Your task to perform on an android device: change notifications settings Image 0: 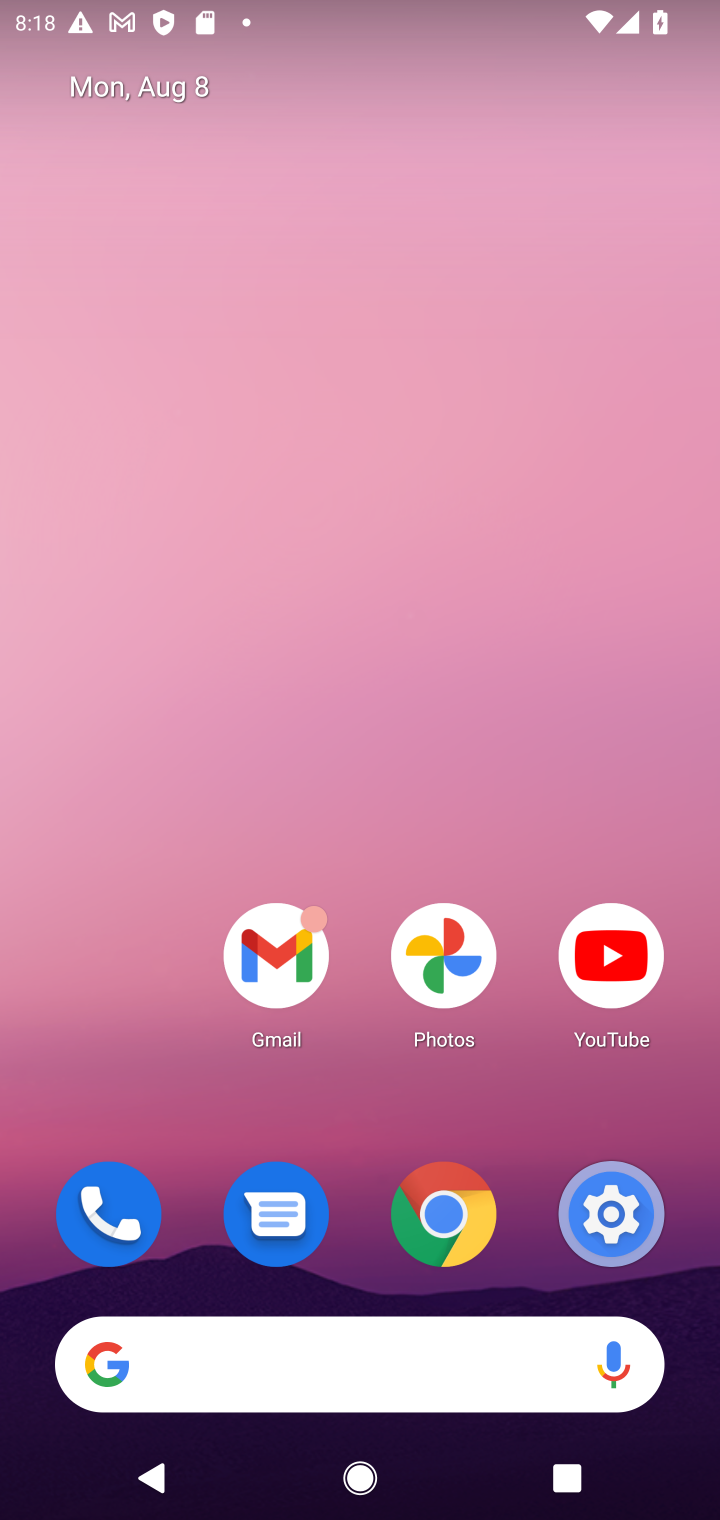
Step 0: click (633, 1205)
Your task to perform on an android device: change notifications settings Image 1: 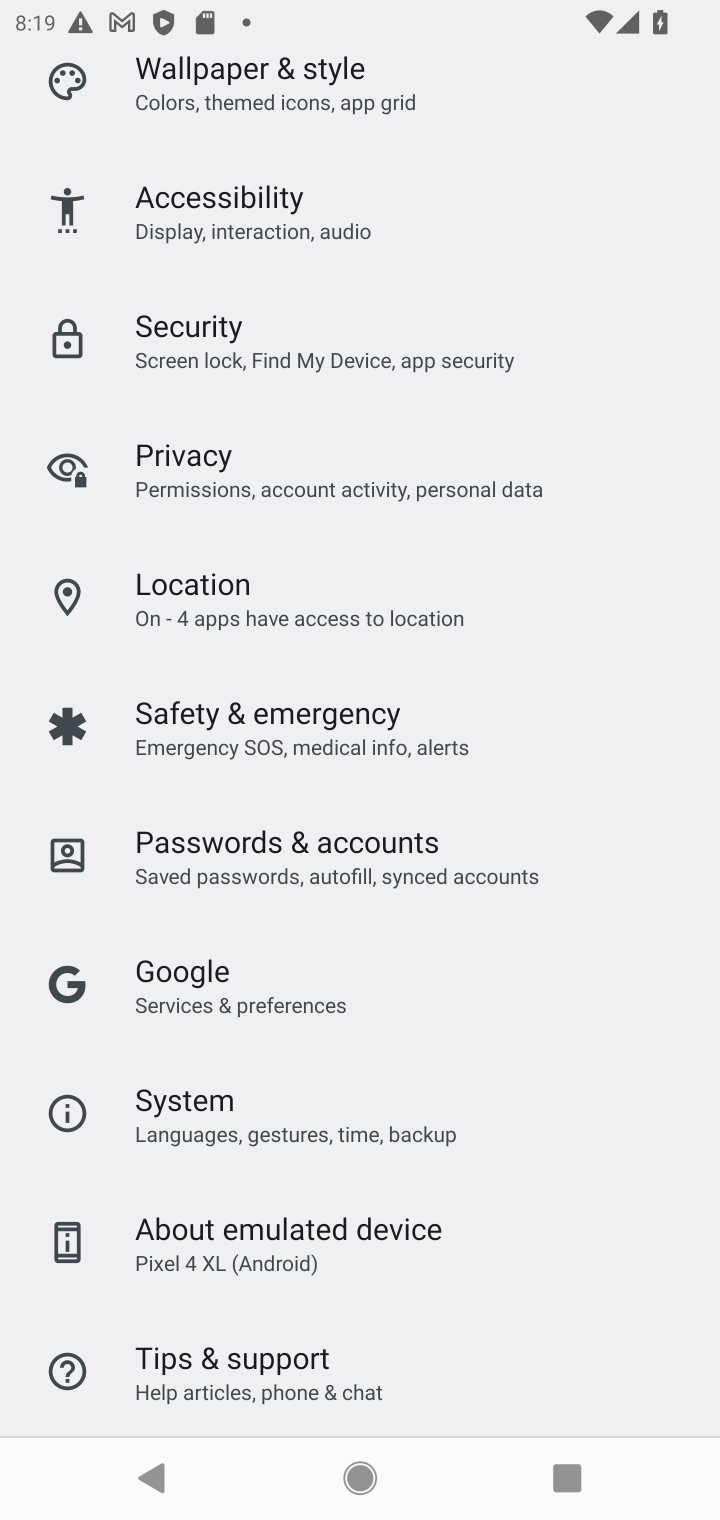
Step 1: drag from (527, 280) to (202, 1515)
Your task to perform on an android device: change notifications settings Image 2: 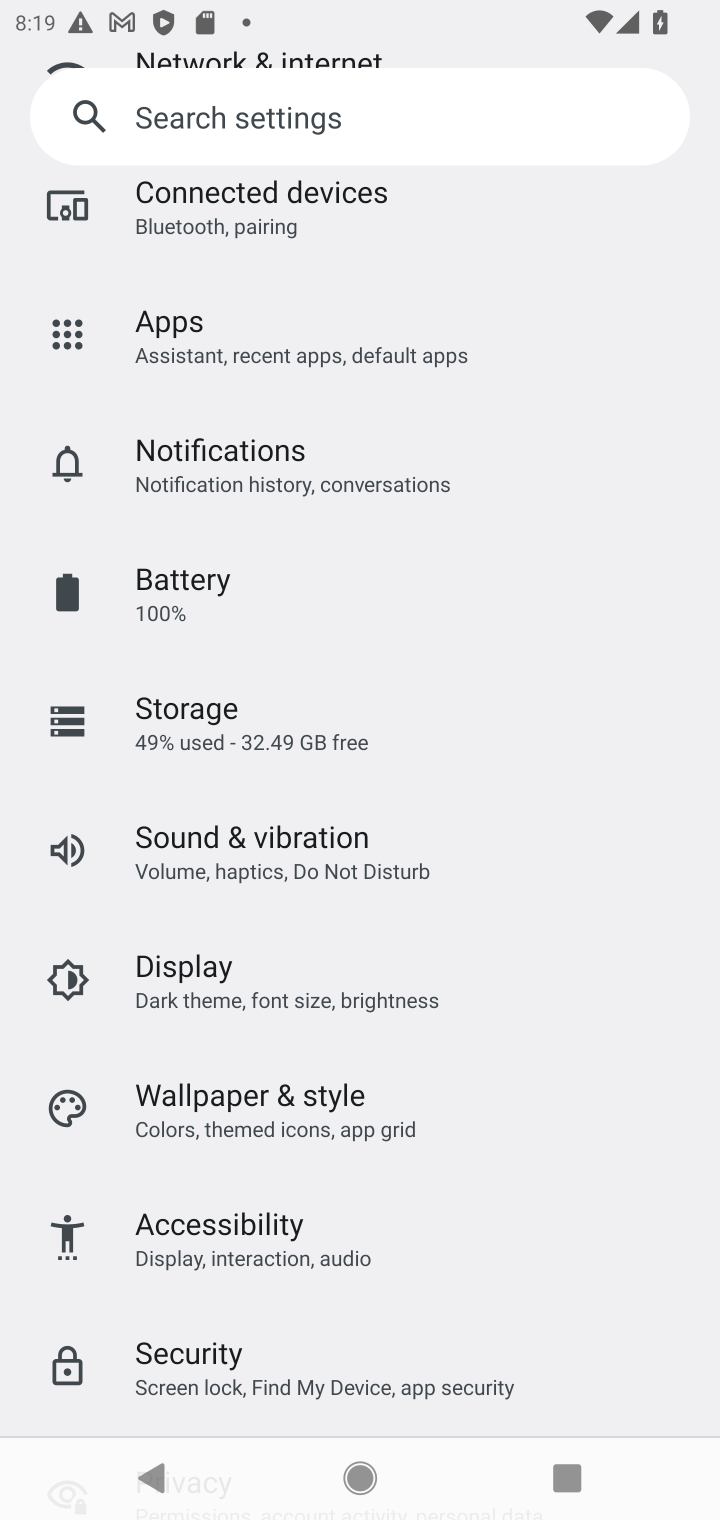
Step 2: click (284, 473)
Your task to perform on an android device: change notifications settings Image 3: 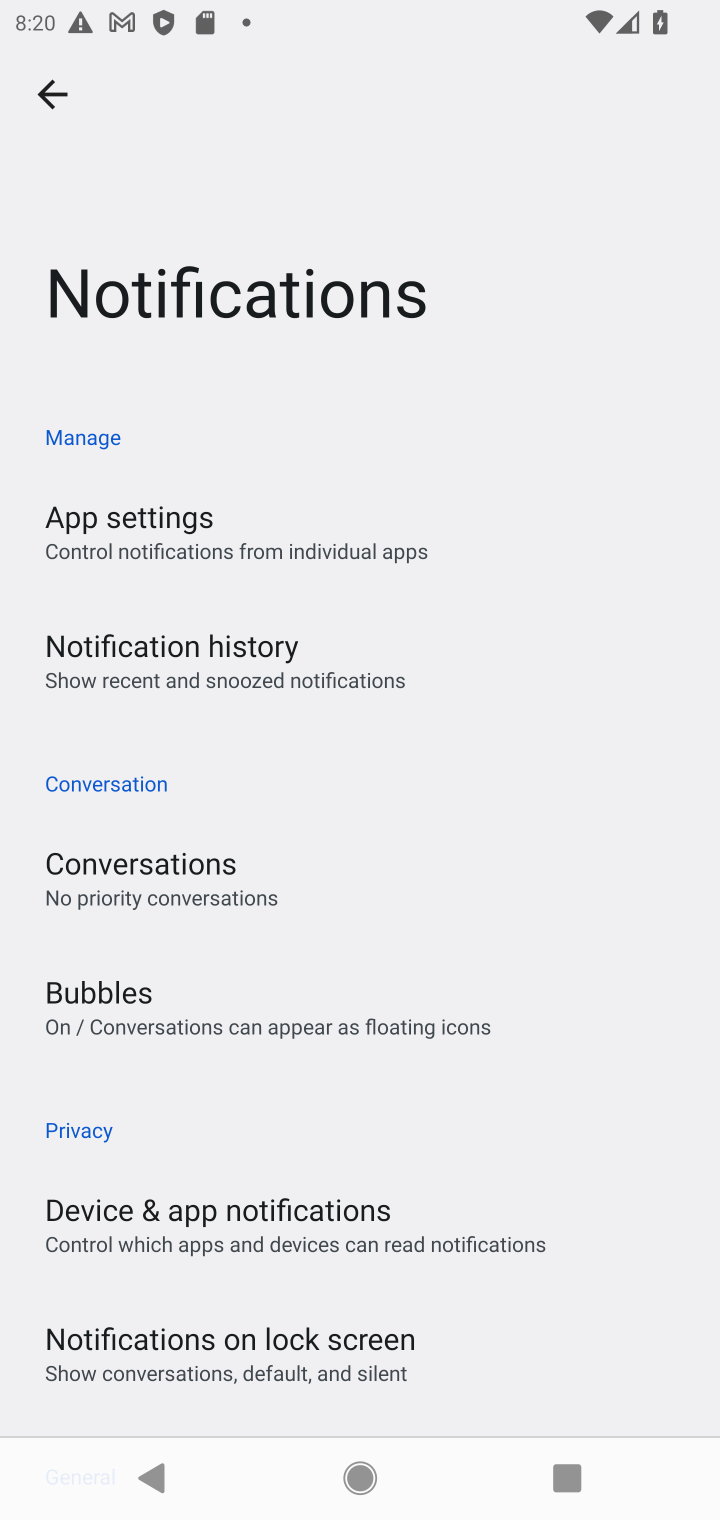
Step 3: click (223, 538)
Your task to perform on an android device: change notifications settings Image 4: 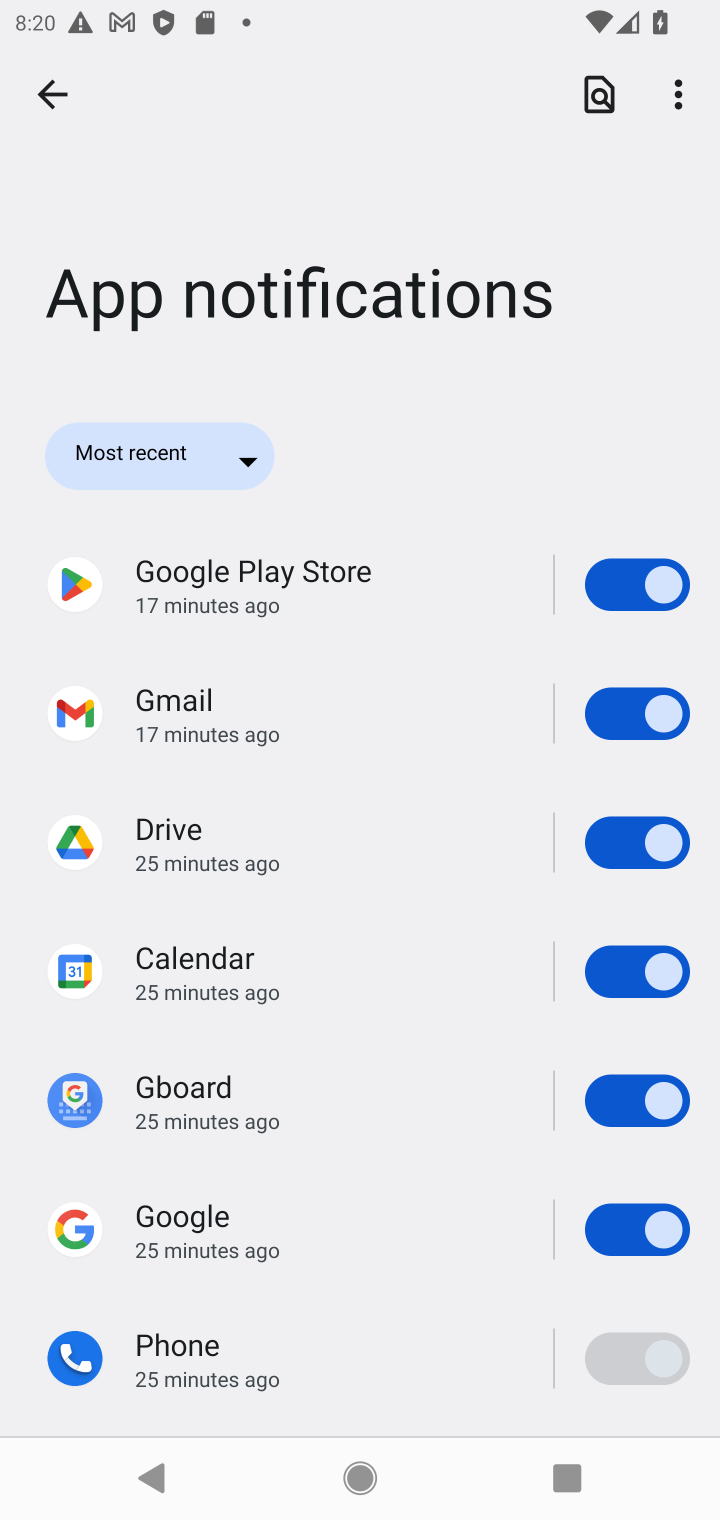
Step 4: click (655, 1226)
Your task to perform on an android device: change notifications settings Image 5: 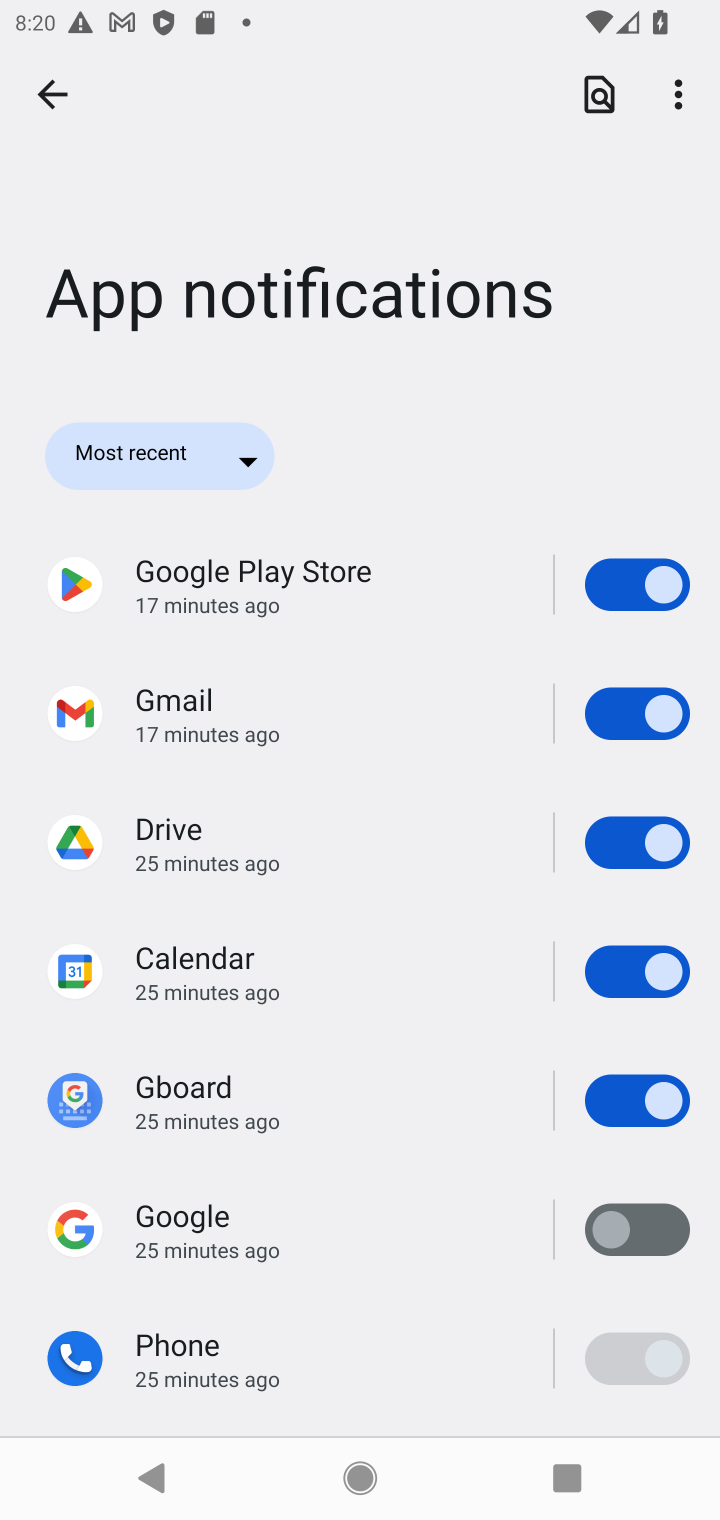
Step 5: task complete